Your task to perform on an android device: Open wifi settings Image 0: 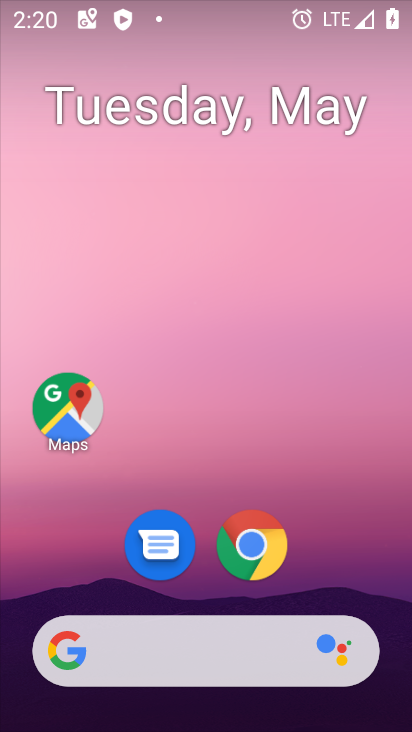
Step 0: drag from (341, 556) to (260, 4)
Your task to perform on an android device: Open wifi settings Image 1: 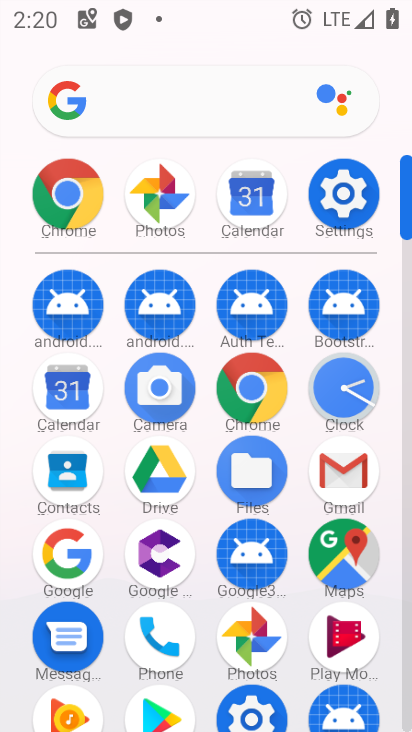
Step 1: drag from (7, 565) to (13, 231)
Your task to perform on an android device: Open wifi settings Image 2: 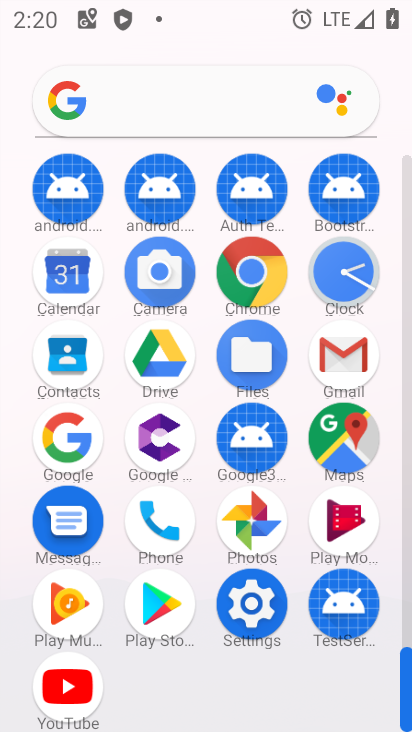
Step 2: click (249, 596)
Your task to perform on an android device: Open wifi settings Image 3: 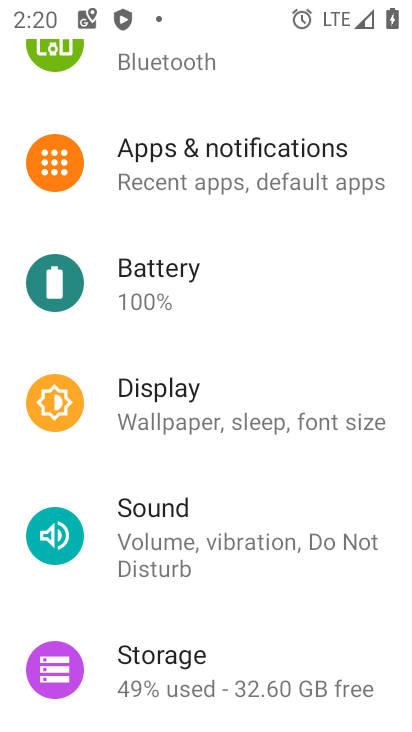
Step 3: drag from (282, 145) to (283, 612)
Your task to perform on an android device: Open wifi settings Image 4: 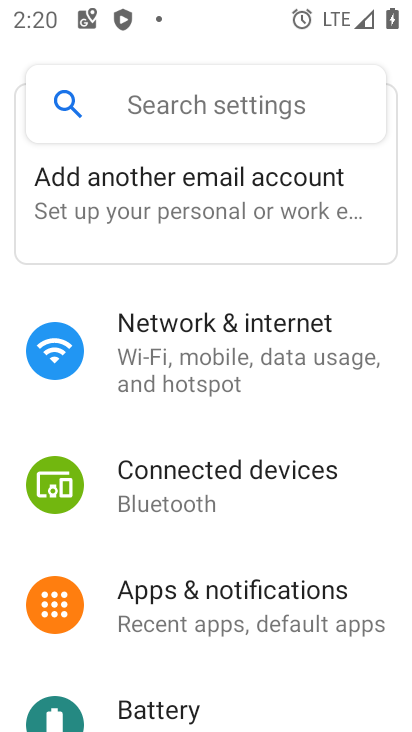
Step 4: click (196, 358)
Your task to perform on an android device: Open wifi settings Image 5: 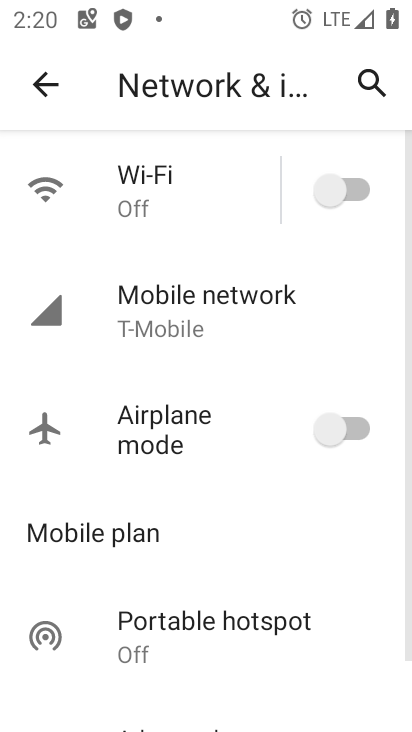
Step 5: click (141, 184)
Your task to perform on an android device: Open wifi settings Image 6: 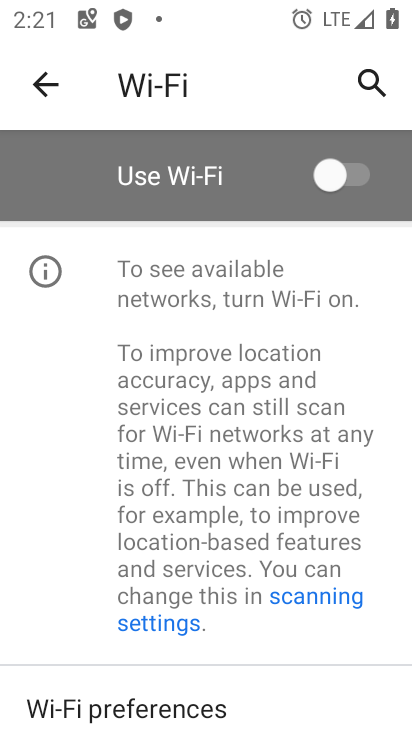
Step 6: task complete